Your task to perform on an android device: Open privacy settings Image 0: 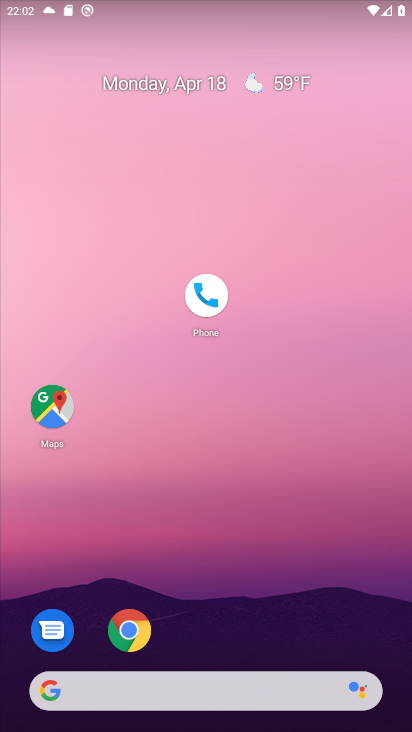
Step 0: drag from (304, 659) to (261, 182)
Your task to perform on an android device: Open privacy settings Image 1: 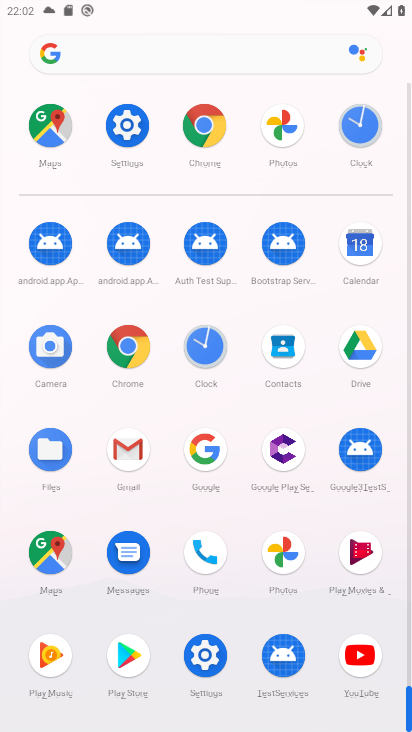
Step 1: click (129, 127)
Your task to perform on an android device: Open privacy settings Image 2: 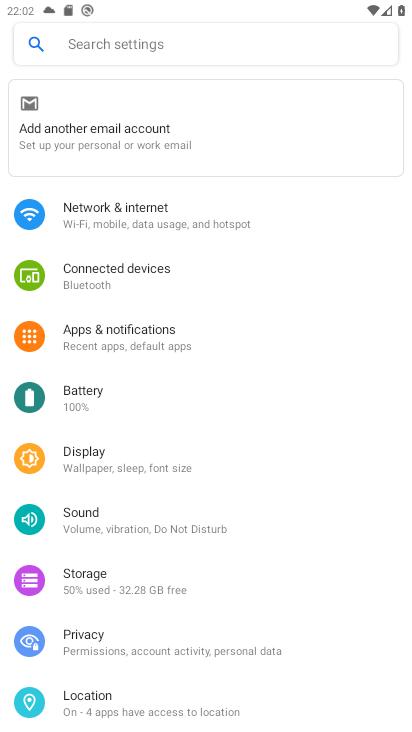
Step 2: click (113, 634)
Your task to perform on an android device: Open privacy settings Image 3: 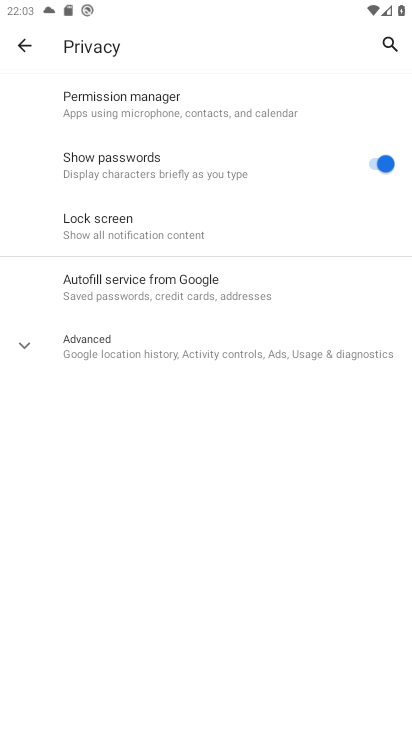
Step 3: task complete